Your task to perform on an android device: Open Wikipedia Image 0: 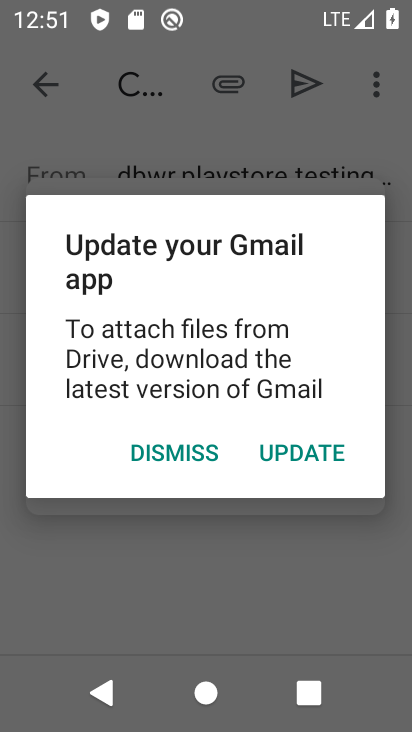
Step 0: press back button
Your task to perform on an android device: Open Wikipedia Image 1: 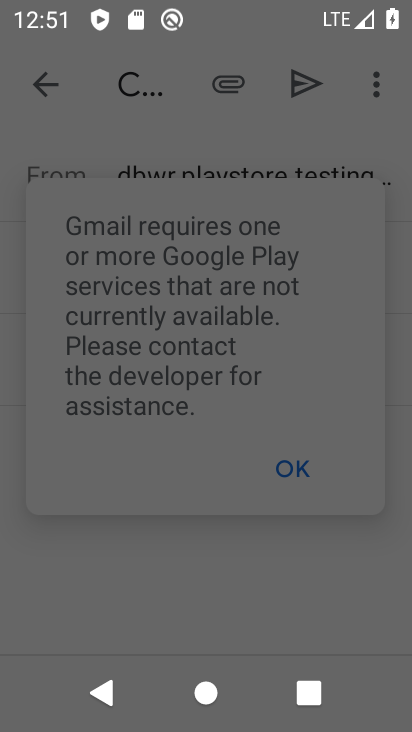
Step 1: press home button
Your task to perform on an android device: Open Wikipedia Image 2: 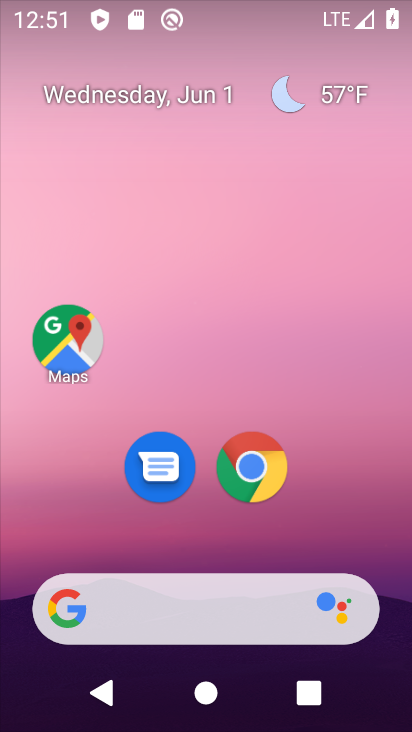
Step 2: drag from (354, 501) to (408, 367)
Your task to perform on an android device: Open Wikipedia Image 3: 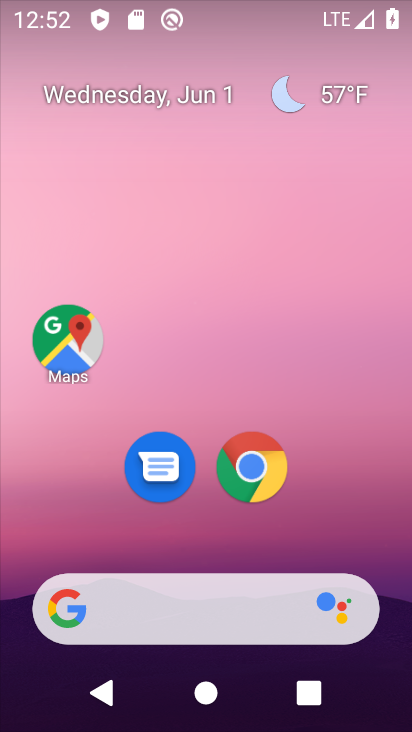
Step 3: drag from (335, 515) to (350, 82)
Your task to perform on an android device: Open Wikipedia Image 4: 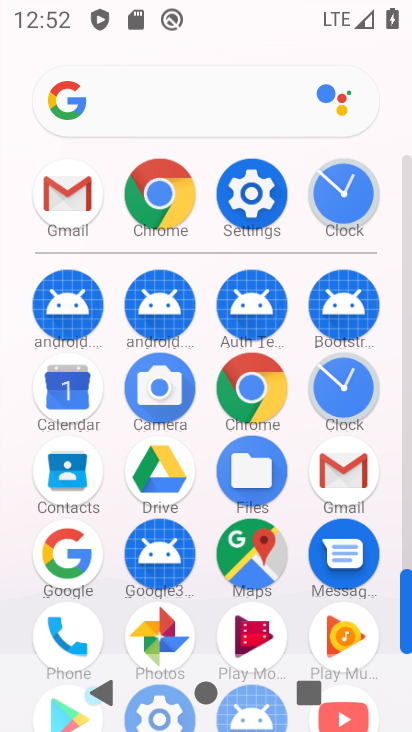
Step 4: click (266, 390)
Your task to perform on an android device: Open Wikipedia Image 5: 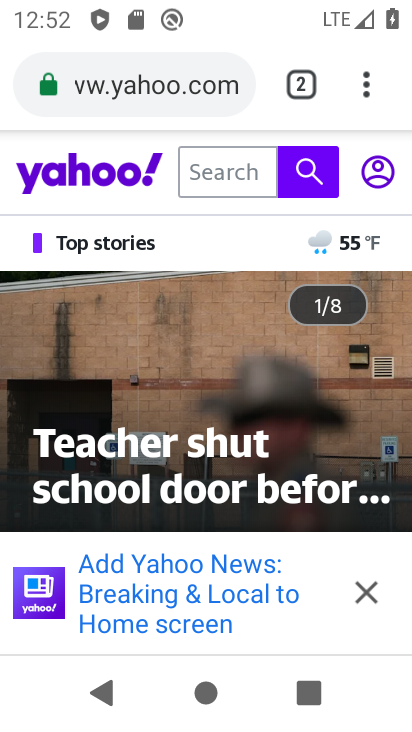
Step 5: press back button
Your task to perform on an android device: Open Wikipedia Image 6: 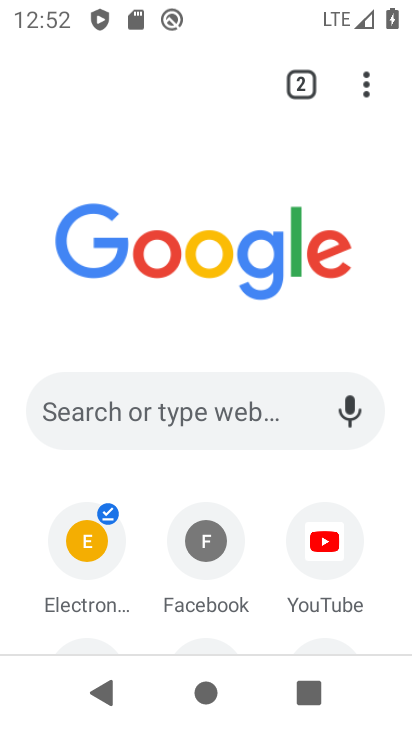
Step 6: drag from (270, 494) to (270, 265)
Your task to perform on an android device: Open Wikipedia Image 7: 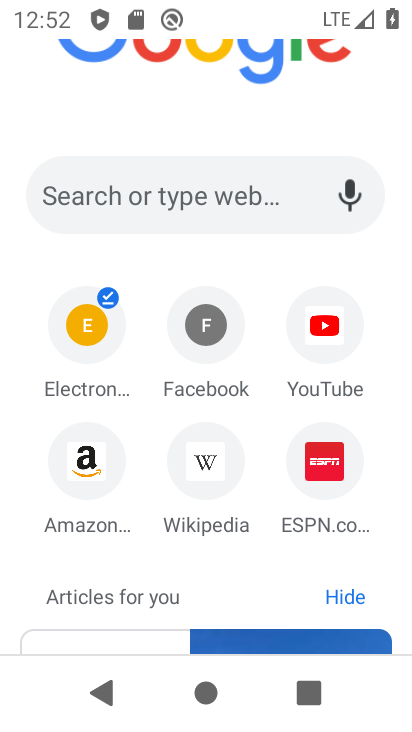
Step 7: click (213, 490)
Your task to perform on an android device: Open Wikipedia Image 8: 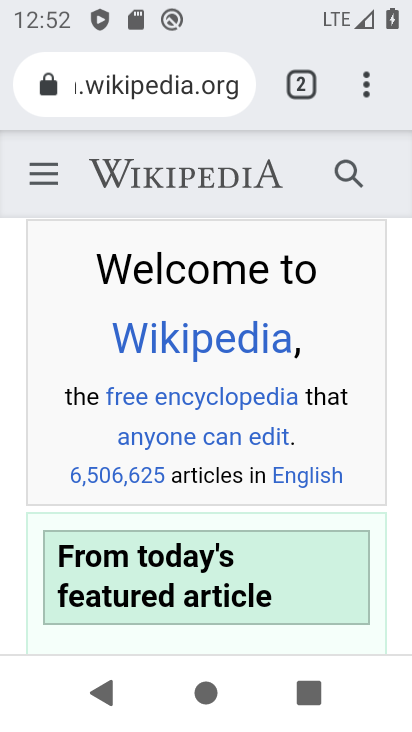
Step 8: task complete